Your task to perform on an android device: Open Google Chrome and open the bookmarks view Image 0: 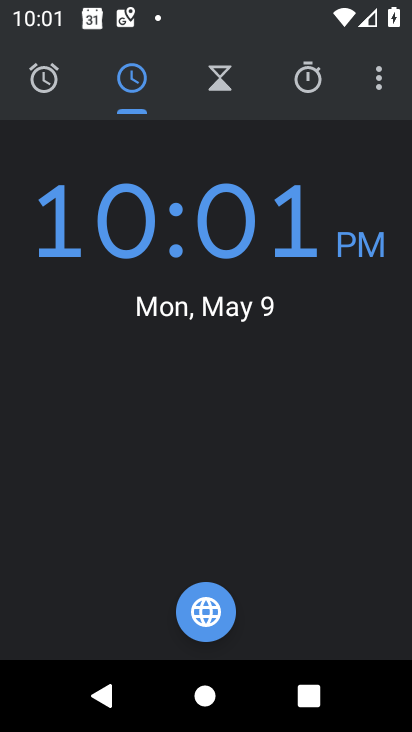
Step 0: press back button
Your task to perform on an android device: Open Google Chrome and open the bookmarks view Image 1: 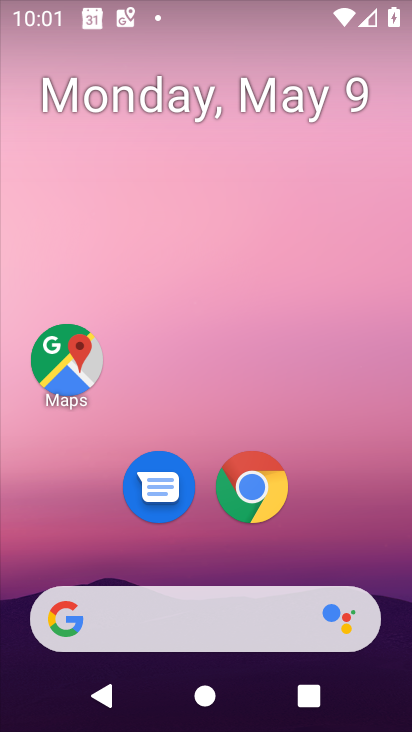
Step 1: click (248, 486)
Your task to perform on an android device: Open Google Chrome and open the bookmarks view Image 2: 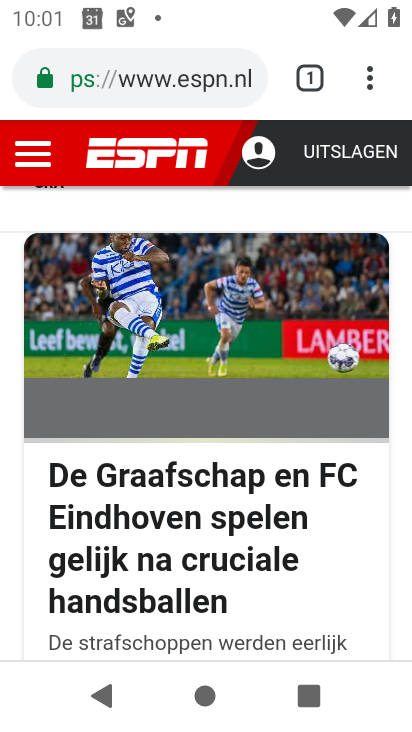
Step 2: task complete